Your task to perform on an android device: turn notification dots off Image 0: 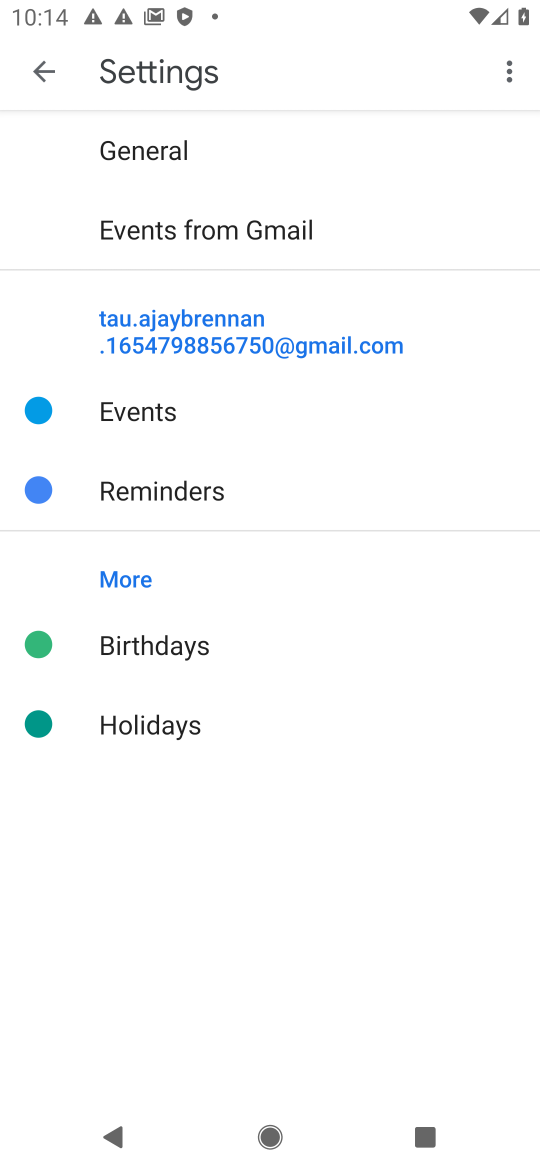
Step 0: press home button
Your task to perform on an android device: turn notification dots off Image 1: 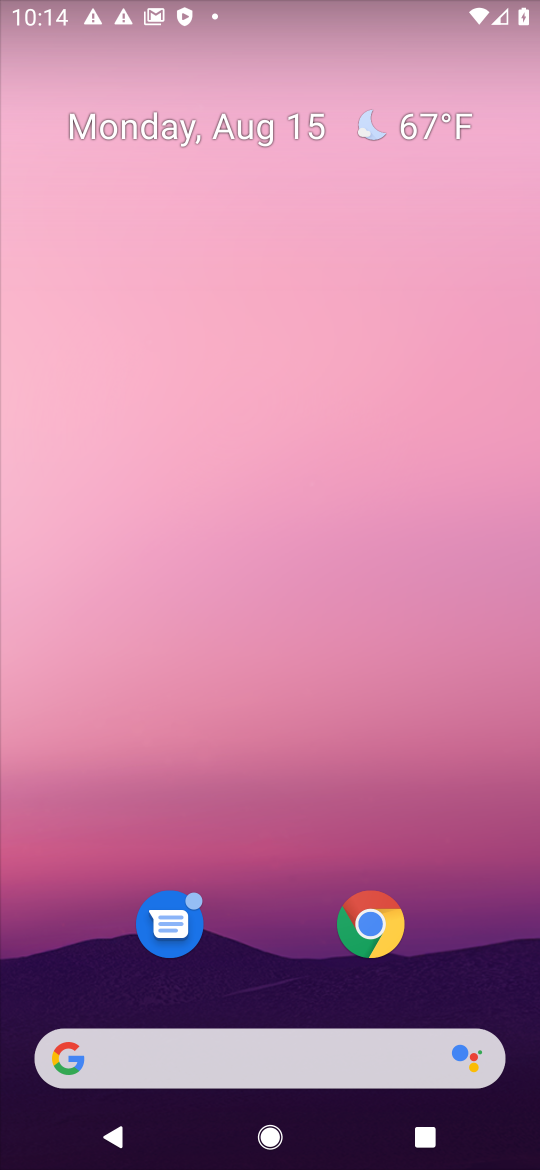
Step 1: drag from (505, 980) to (434, 298)
Your task to perform on an android device: turn notification dots off Image 2: 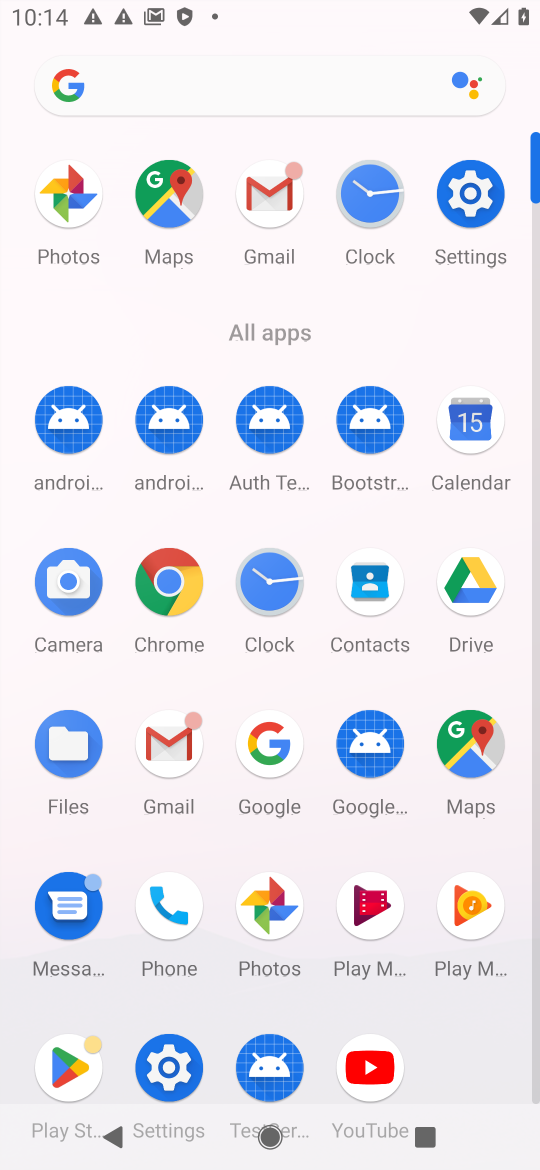
Step 2: click (170, 1067)
Your task to perform on an android device: turn notification dots off Image 3: 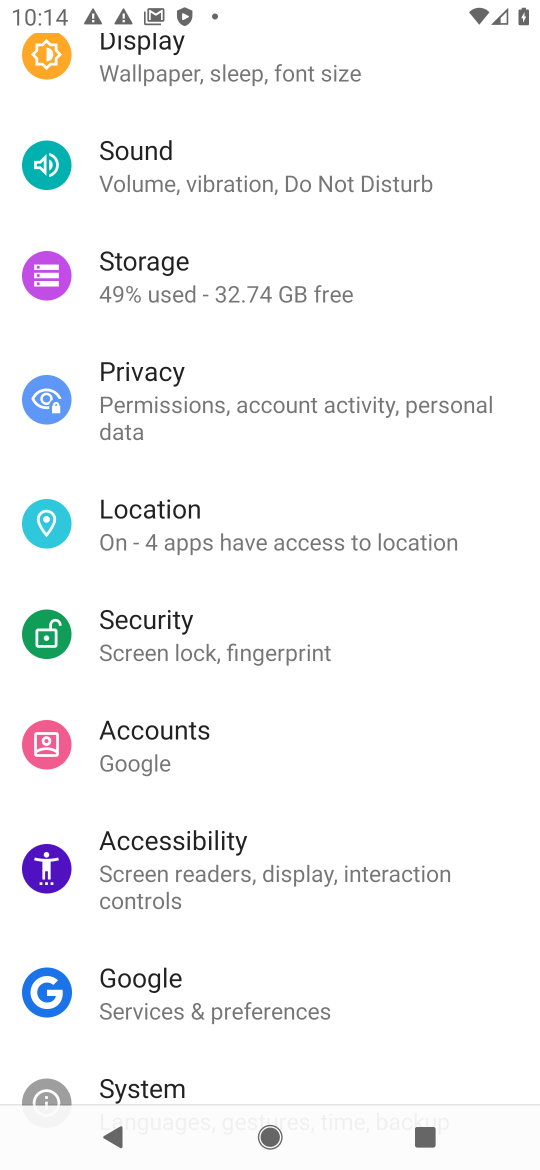
Step 3: drag from (398, 251) to (420, 703)
Your task to perform on an android device: turn notification dots off Image 4: 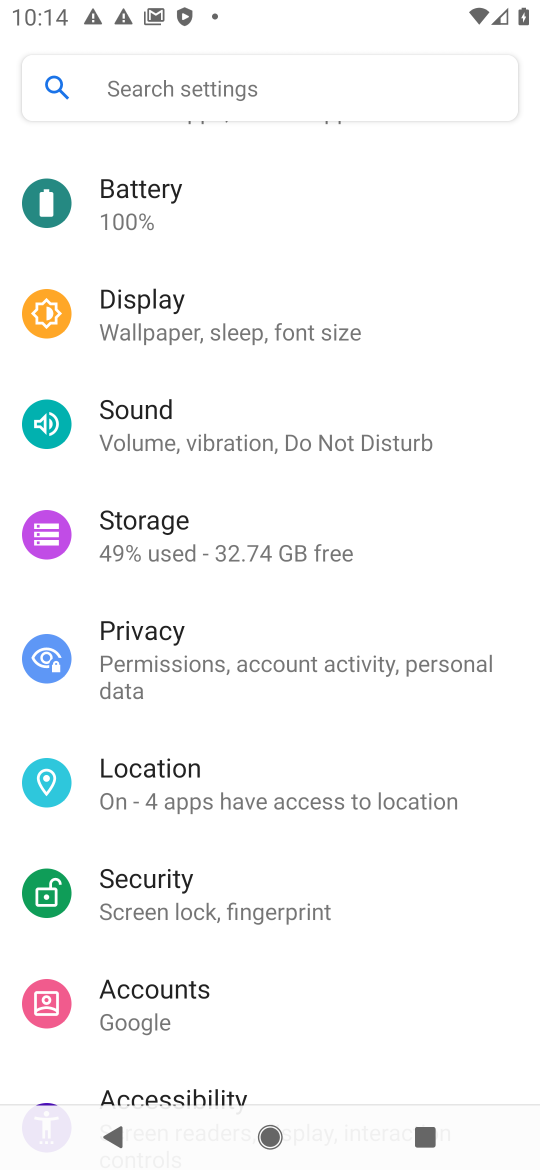
Step 4: drag from (373, 408) to (381, 664)
Your task to perform on an android device: turn notification dots off Image 5: 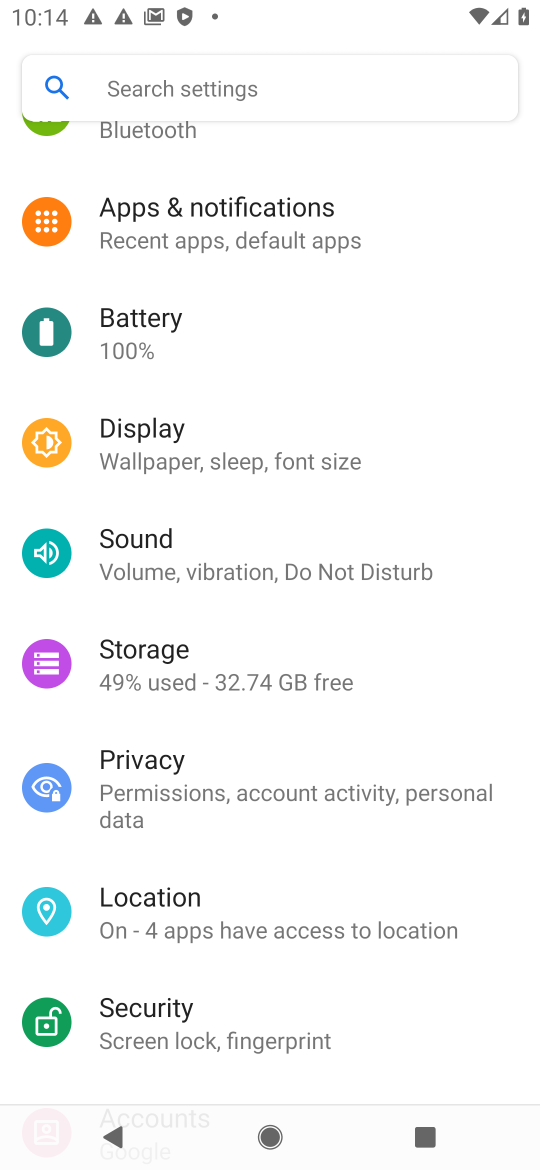
Step 5: click (218, 210)
Your task to perform on an android device: turn notification dots off Image 6: 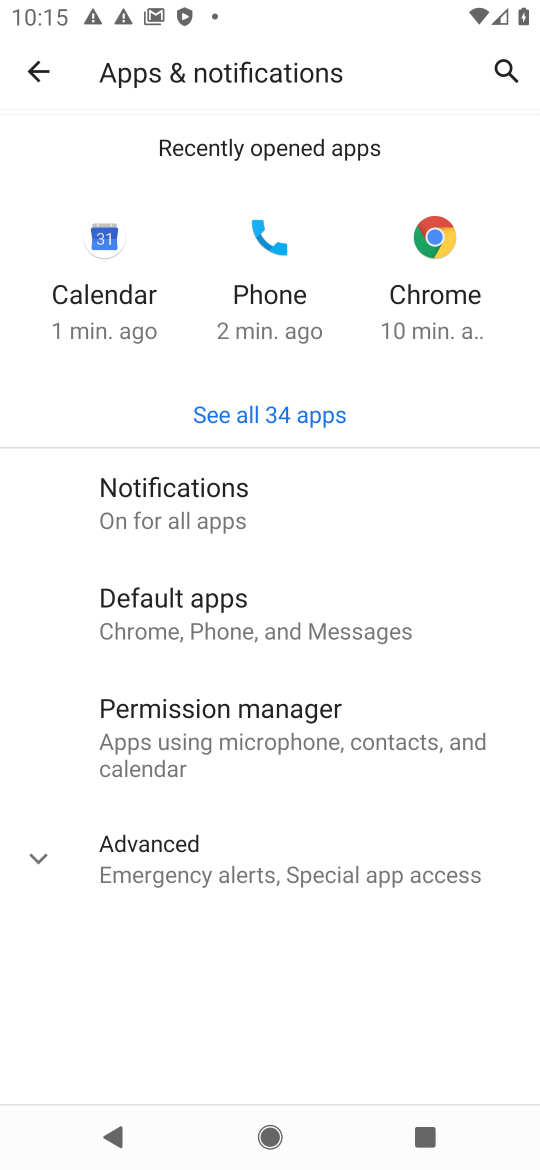
Step 6: click (163, 485)
Your task to perform on an android device: turn notification dots off Image 7: 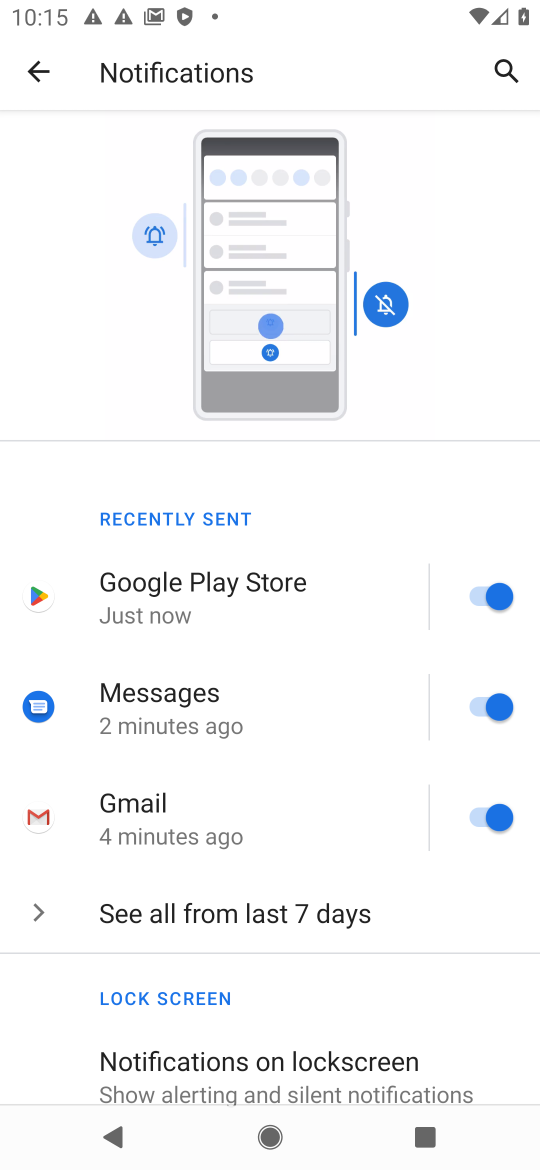
Step 7: drag from (375, 979) to (444, 286)
Your task to perform on an android device: turn notification dots off Image 8: 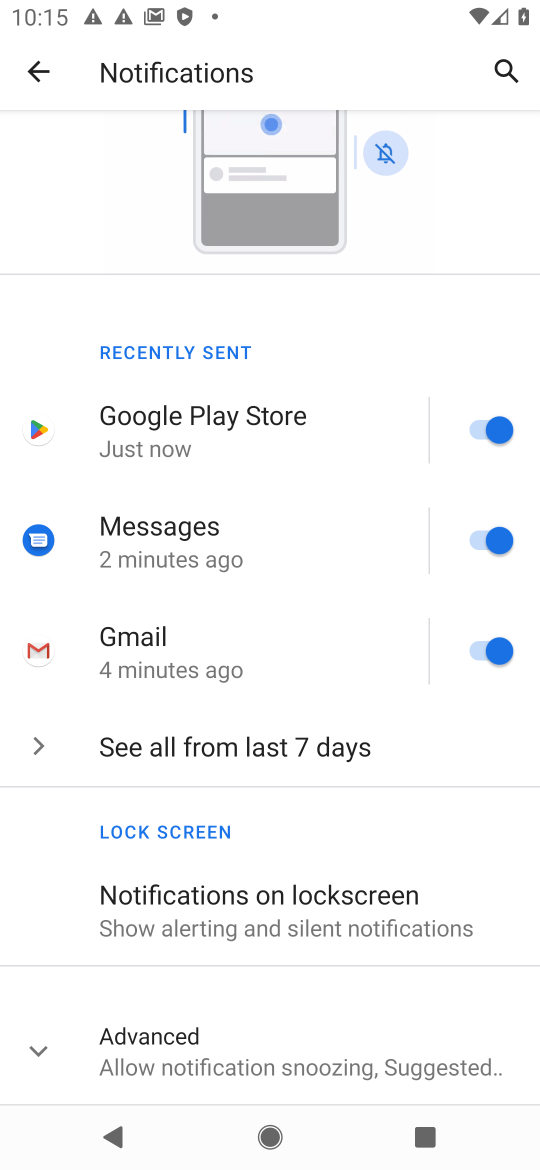
Step 8: click (36, 1047)
Your task to perform on an android device: turn notification dots off Image 9: 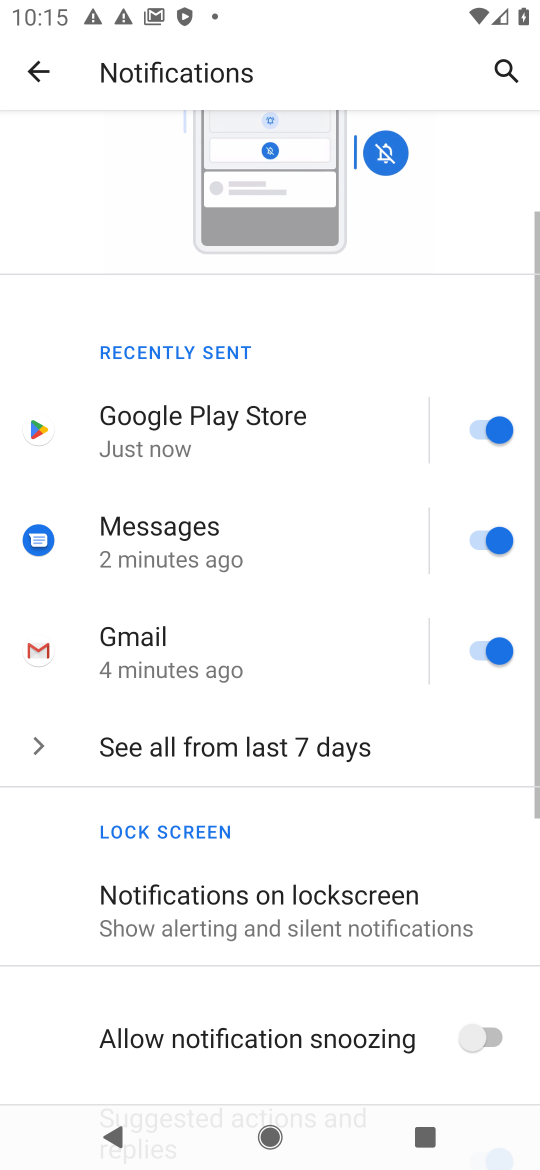
Step 9: drag from (380, 984) to (417, 269)
Your task to perform on an android device: turn notification dots off Image 10: 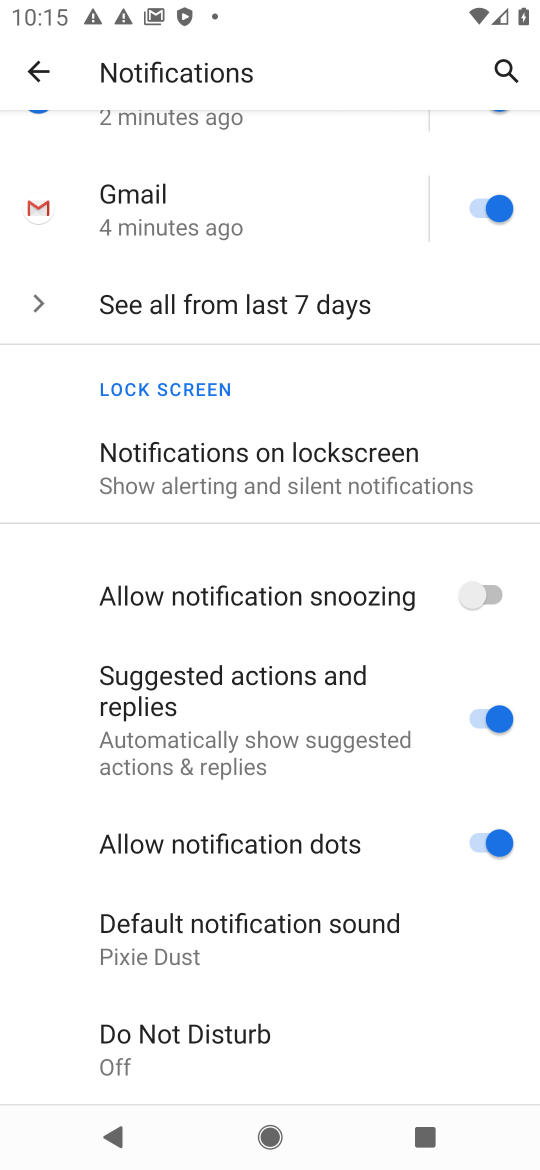
Step 10: click (477, 844)
Your task to perform on an android device: turn notification dots off Image 11: 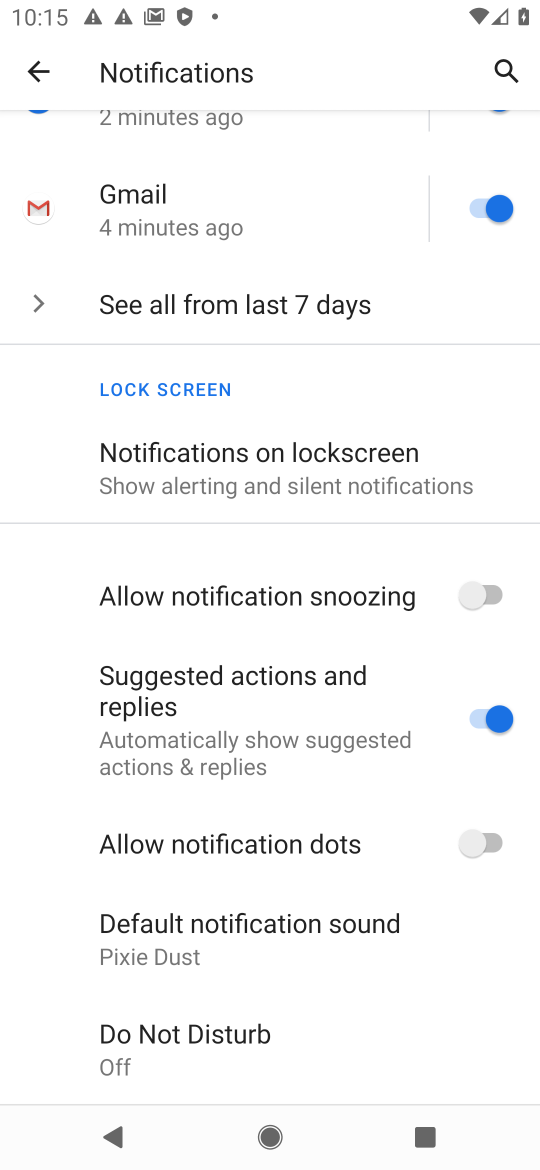
Step 11: task complete